Your task to perform on an android device: Open internet settings Image 0: 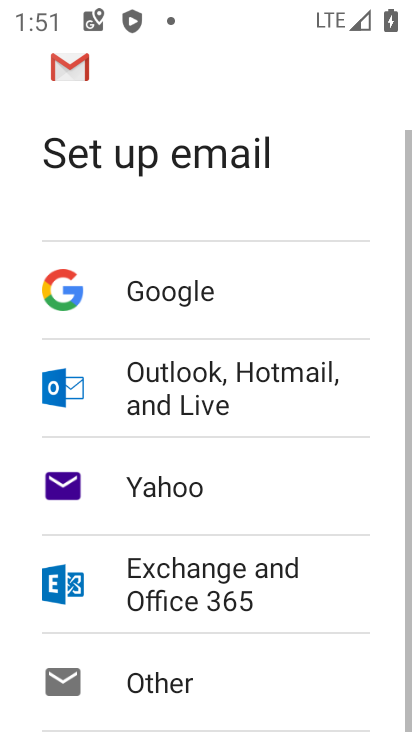
Step 0: press home button
Your task to perform on an android device: Open internet settings Image 1: 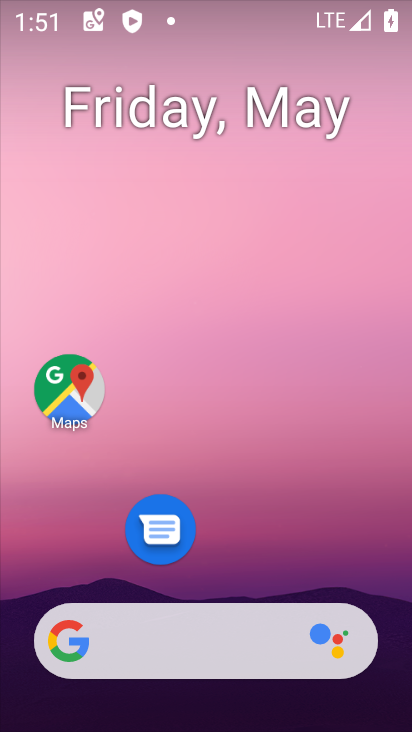
Step 1: drag from (206, 579) to (274, 77)
Your task to perform on an android device: Open internet settings Image 2: 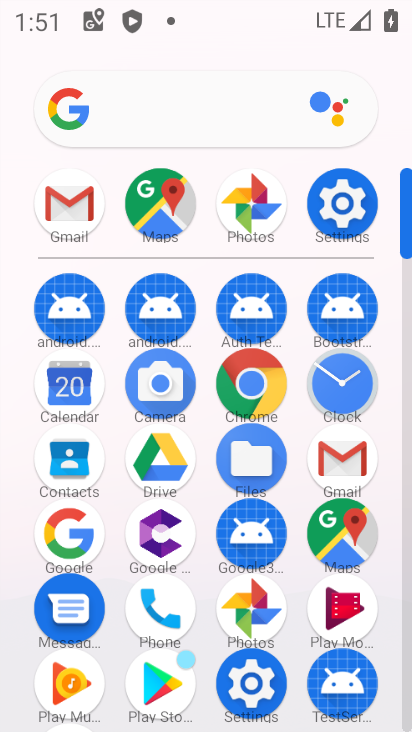
Step 2: drag from (196, 218) to (287, 609)
Your task to perform on an android device: Open internet settings Image 3: 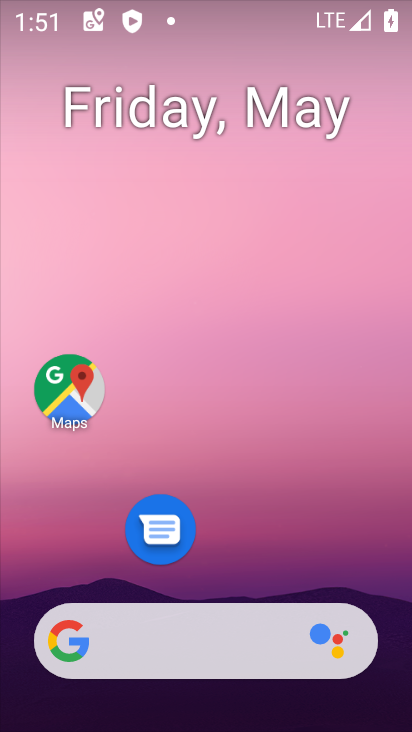
Step 3: drag from (205, 585) to (253, 16)
Your task to perform on an android device: Open internet settings Image 4: 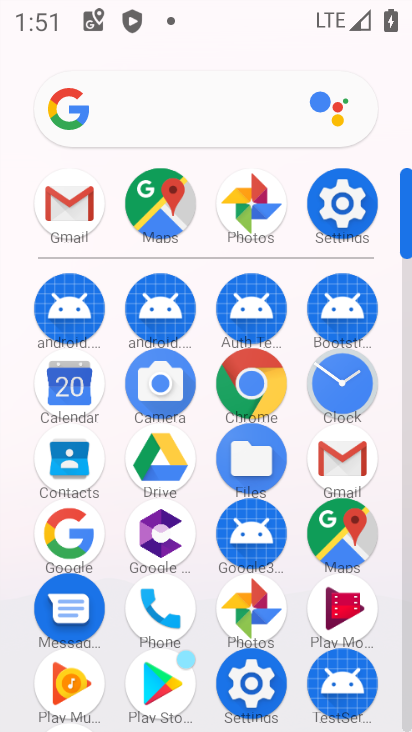
Step 4: click (341, 192)
Your task to perform on an android device: Open internet settings Image 5: 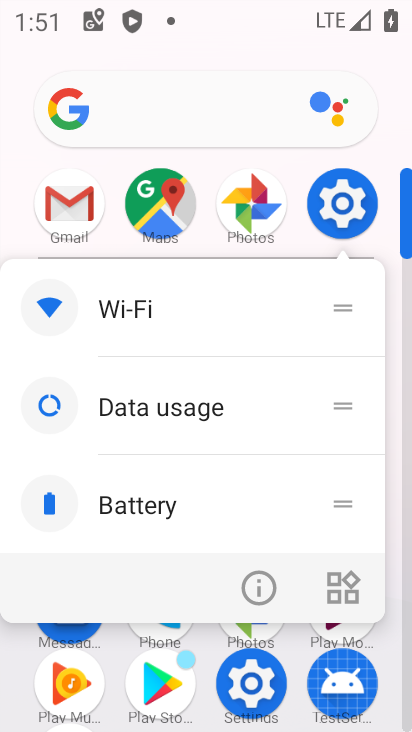
Step 5: click (269, 587)
Your task to perform on an android device: Open internet settings Image 6: 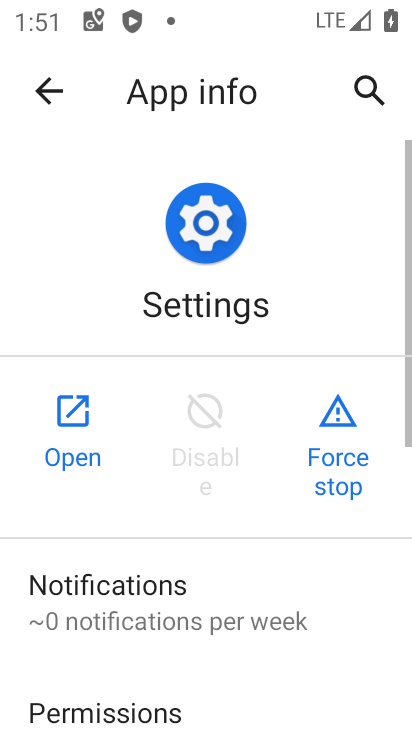
Step 6: click (63, 415)
Your task to perform on an android device: Open internet settings Image 7: 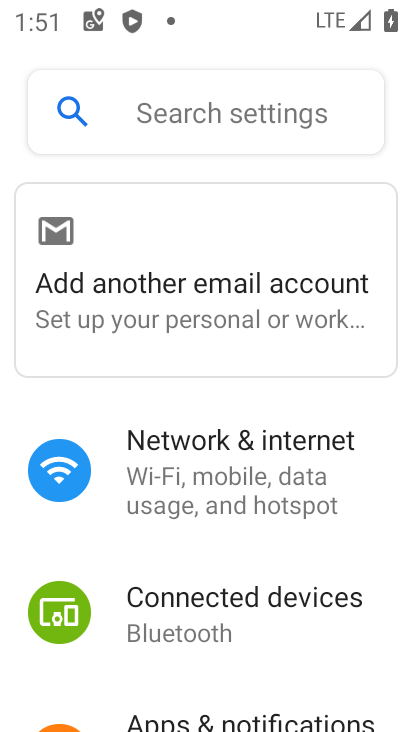
Step 7: click (174, 465)
Your task to perform on an android device: Open internet settings Image 8: 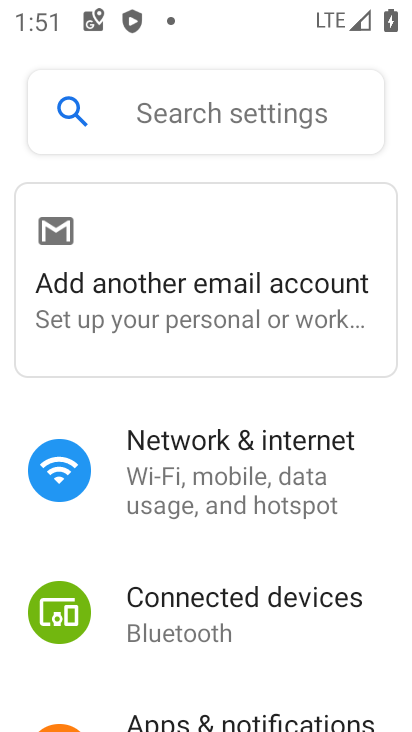
Step 8: click (174, 465)
Your task to perform on an android device: Open internet settings Image 9: 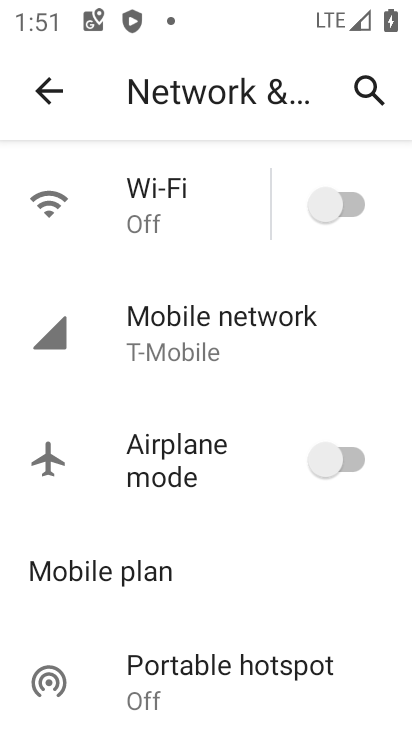
Step 9: task complete